Your task to perform on an android device: Search for sushi restaurants on Maps Image 0: 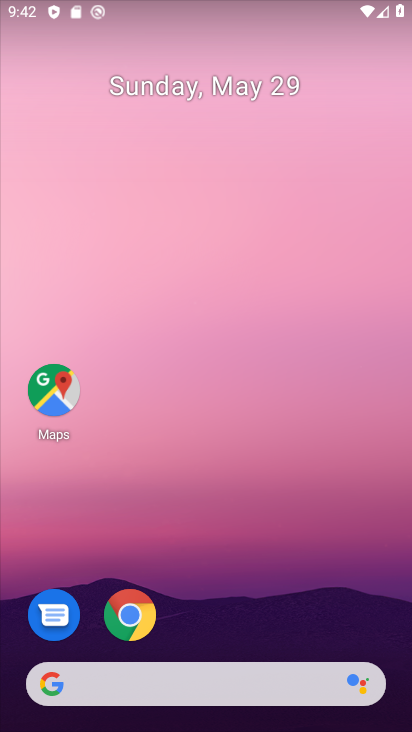
Step 0: drag from (204, 666) to (195, 31)
Your task to perform on an android device: Search for sushi restaurants on Maps Image 1: 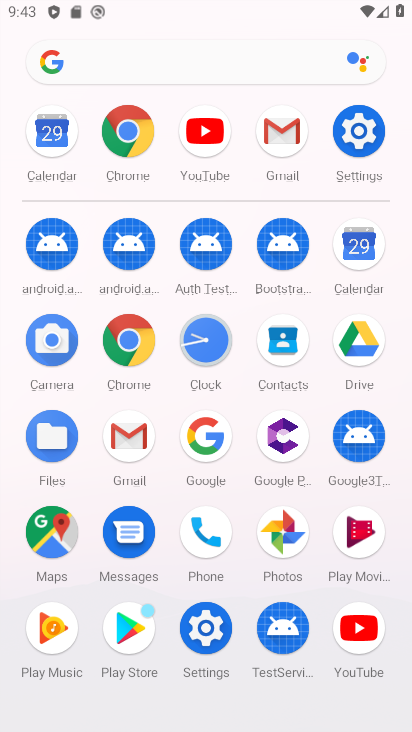
Step 1: click (51, 526)
Your task to perform on an android device: Search for sushi restaurants on Maps Image 2: 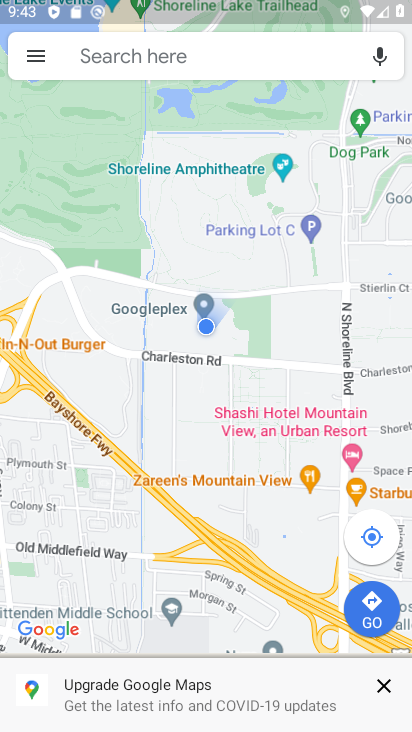
Step 2: click (111, 51)
Your task to perform on an android device: Search for sushi restaurants on Maps Image 3: 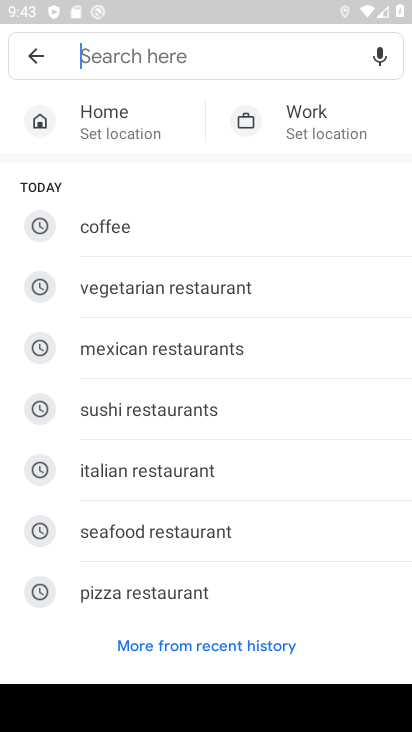
Step 3: click (140, 410)
Your task to perform on an android device: Search for sushi restaurants on Maps Image 4: 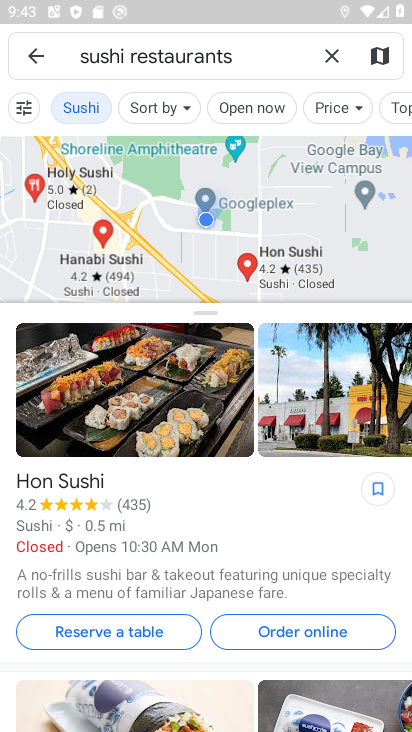
Step 4: task complete